Your task to perform on an android device: set the timer Image 0: 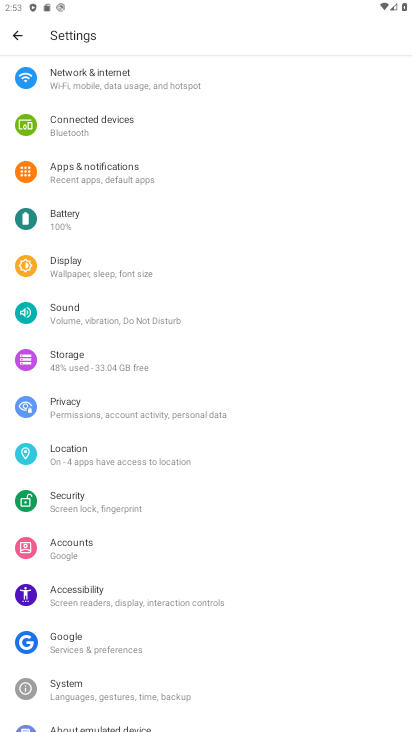
Step 0: click (12, 32)
Your task to perform on an android device: set the timer Image 1: 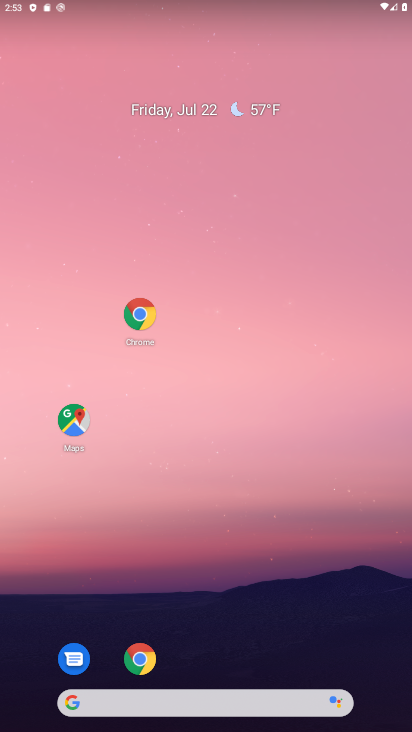
Step 1: drag from (205, 283) to (205, 213)
Your task to perform on an android device: set the timer Image 2: 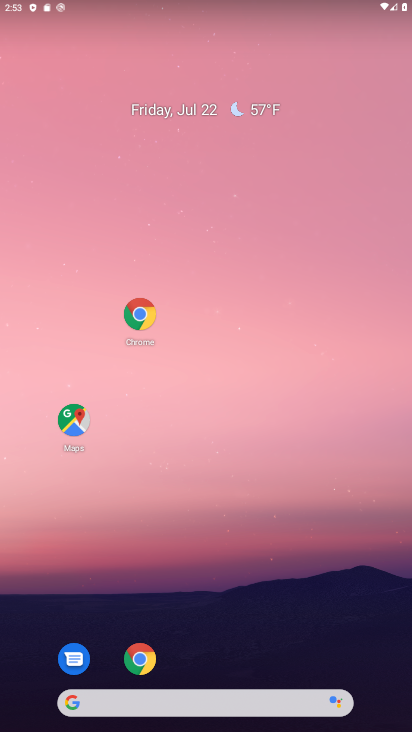
Step 2: click (209, 240)
Your task to perform on an android device: set the timer Image 3: 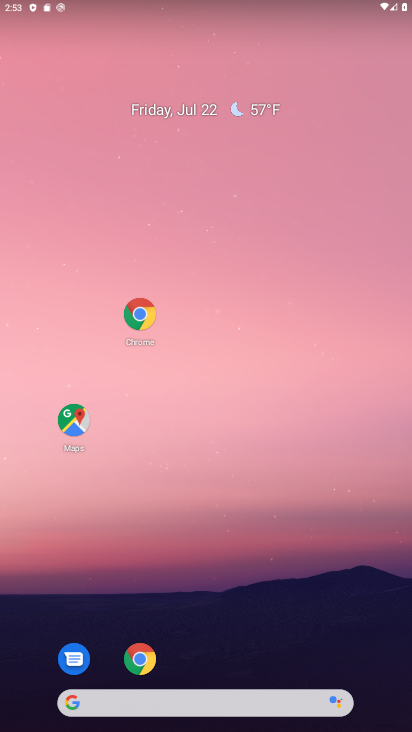
Step 3: drag from (274, 518) to (252, 19)
Your task to perform on an android device: set the timer Image 4: 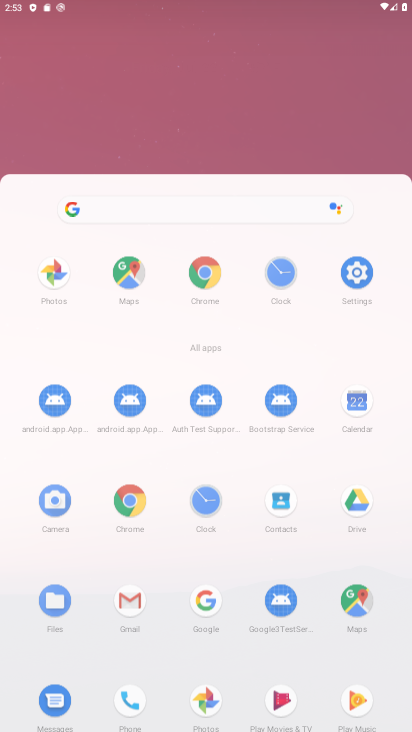
Step 4: drag from (234, 482) to (224, 83)
Your task to perform on an android device: set the timer Image 5: 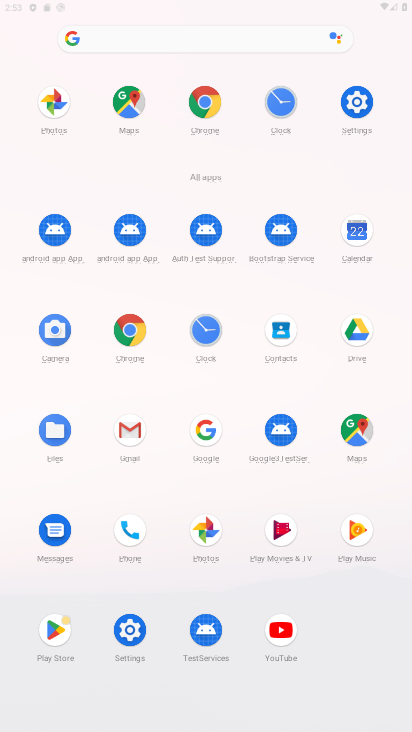
Step 5: drag from (207, 439) to (147, 73)
Your task to perform on an android device: set the timer Image 6: 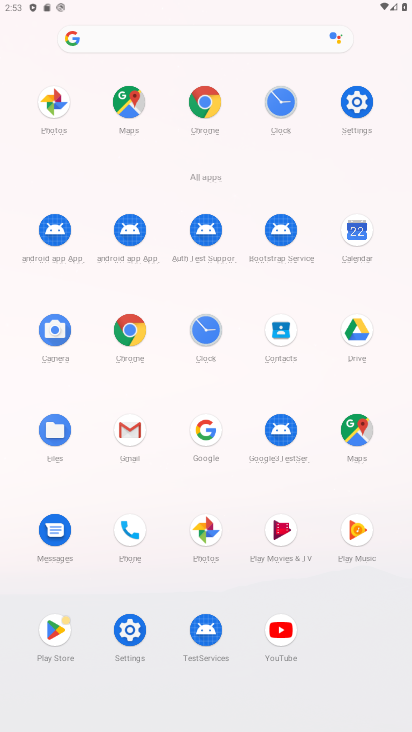
Step 6: click (201, 326)
Your task to perform on an android device: set the timer Image 7: 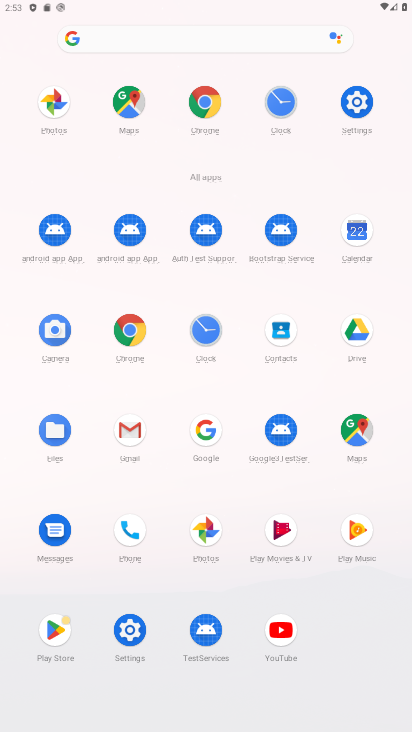
Step 7: click (200, 327)
Your task to perform on an android device: set the timer Image 8: 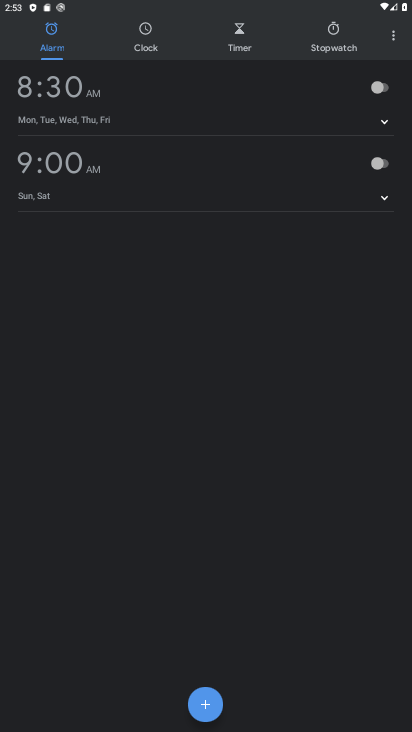
Step 8: click (249, 42)
Your task to perform on an android device: set the timer Image 9: 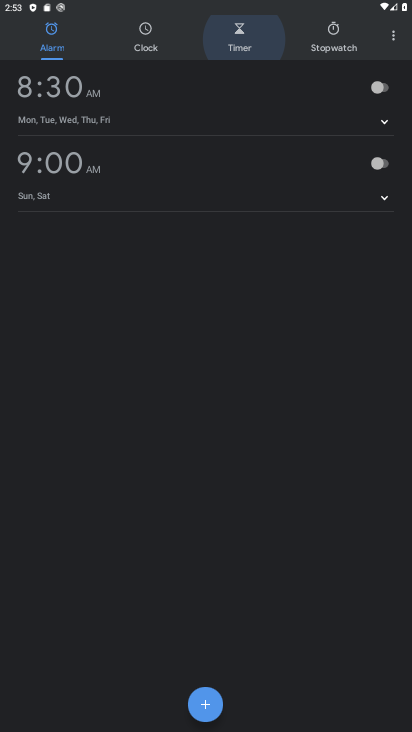
Step 9: click (241, 48)
Your task to perform on an android device: set the timer Image 10: 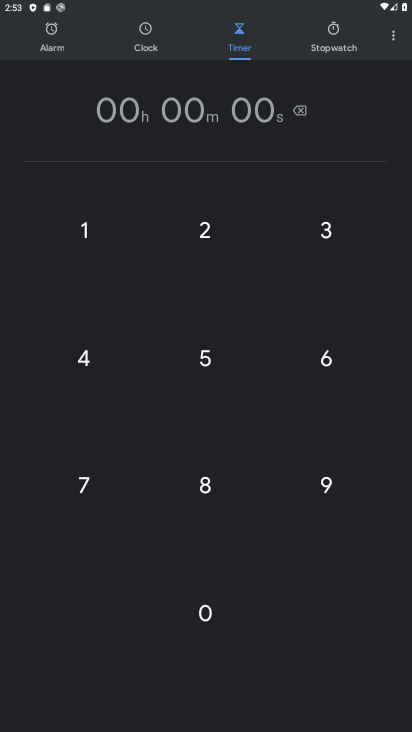
Step 10: click (212, 360)
Your task to perform on an android device: set the timer Image 11: 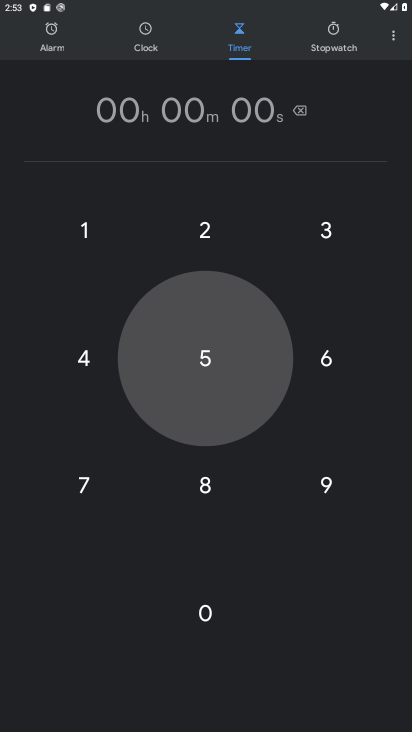
Step 11: click (212, 360)
Your task to perform on an android device: set the timer Image 12: 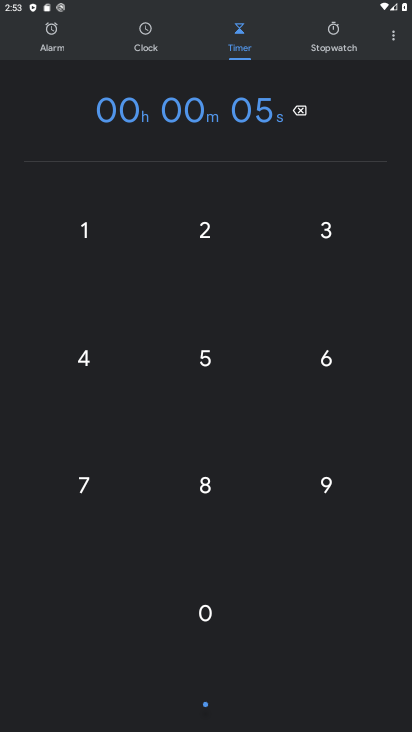
Step 12: click (211, 359)
Your task to perform on an android device: set the timer Image 13: 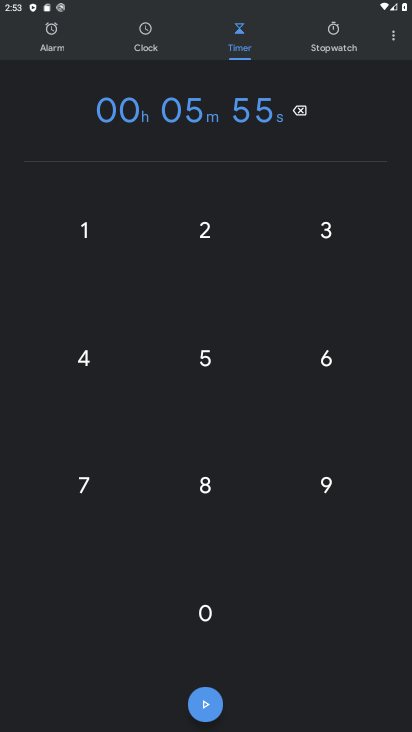
Step 13: click (211, 358)
Your task to perform on an android device: set the timer Image 14: 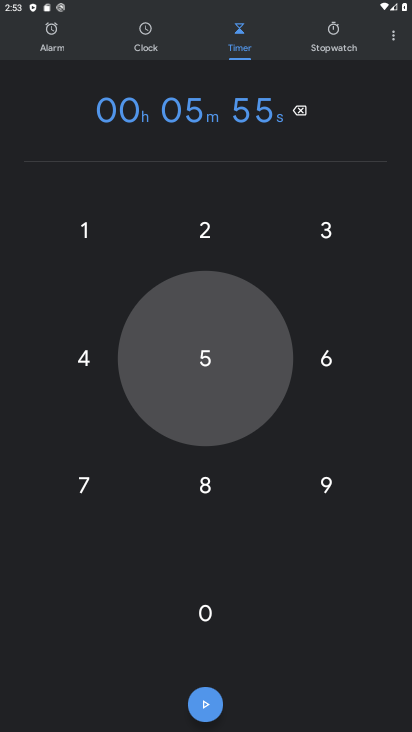
Step 14: click (211, 358)
Your task to perform on an android device: set the timer Image 15: 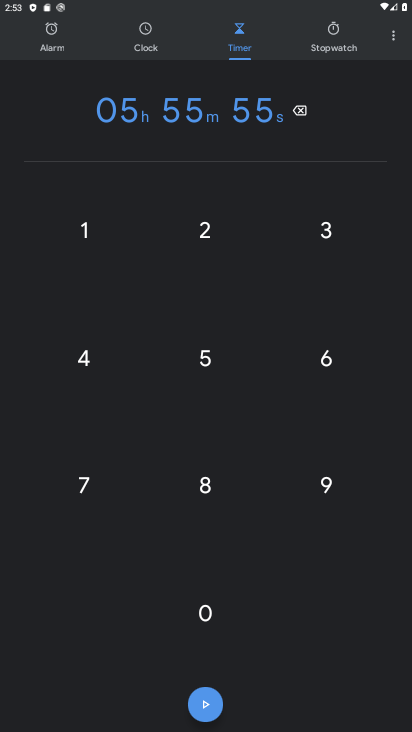
Step 15: click (196, 360)
Your task to perform on an android device: set the timer Image 16: 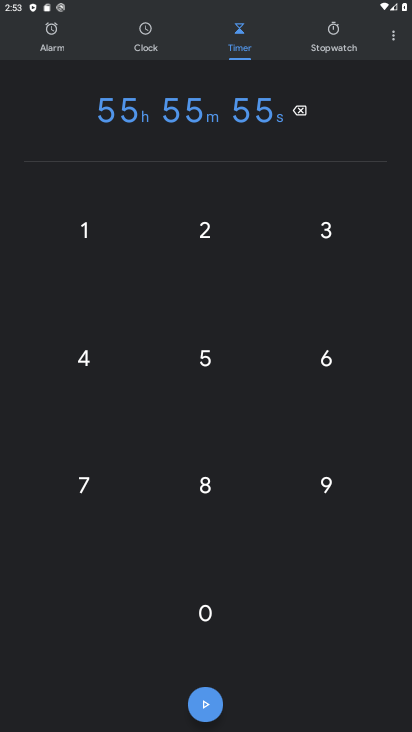
Step 16: click (210, 365)
Your task to perform on an android device: set the timer Image 17: 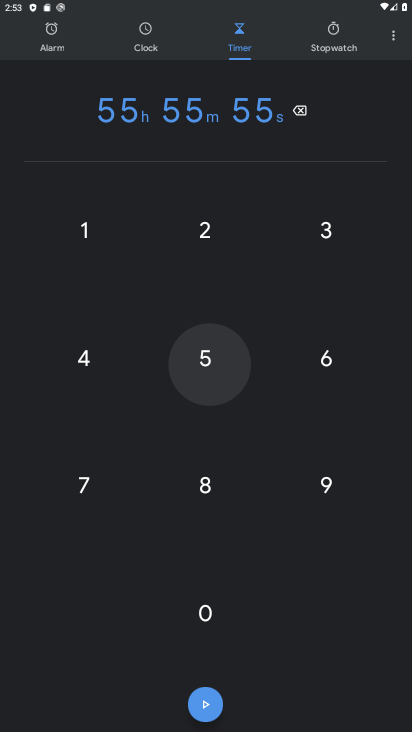
Step 17: click (210, 350)
Your task to perform on an android device: set the timer Image 18: 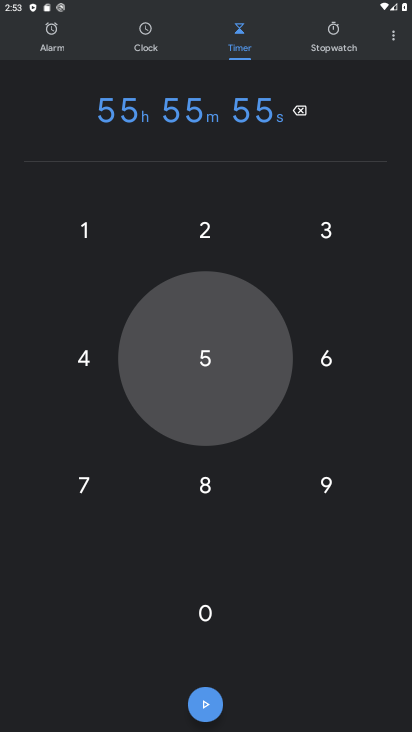
Step 18: click (210, 351)
Your task to perform on an android device: set the timer Image 19: 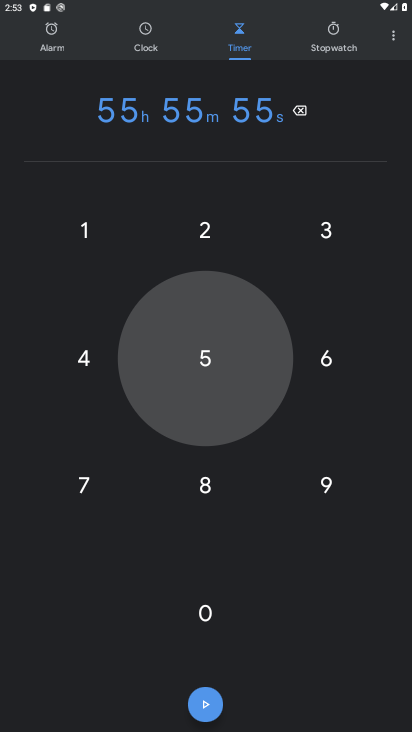
Step 19: click (216, 369)
Your task to perform on an android device: set the timer Image 20: 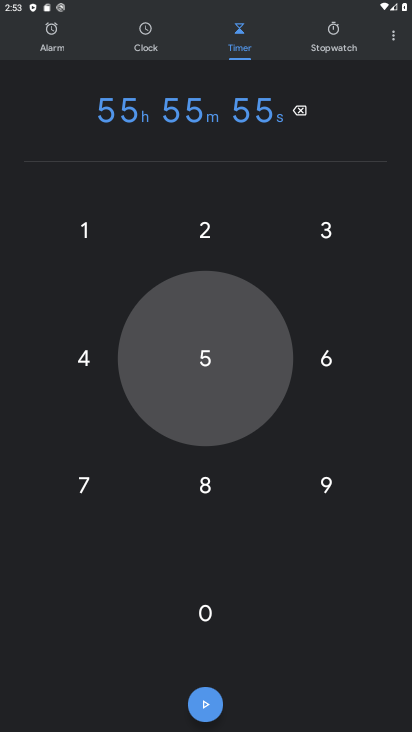
Step 20: click (208, 361)
Your task to perform on an android device: set the timer Image 21: 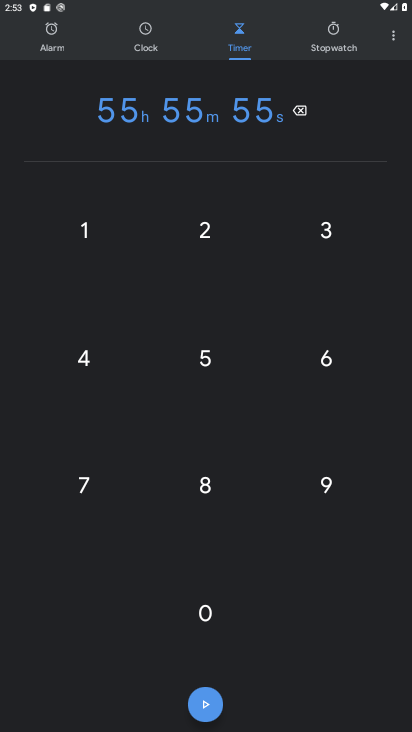
Step 21: click (208, 361)
Your task to perform on an android device: set the timer Image 22: 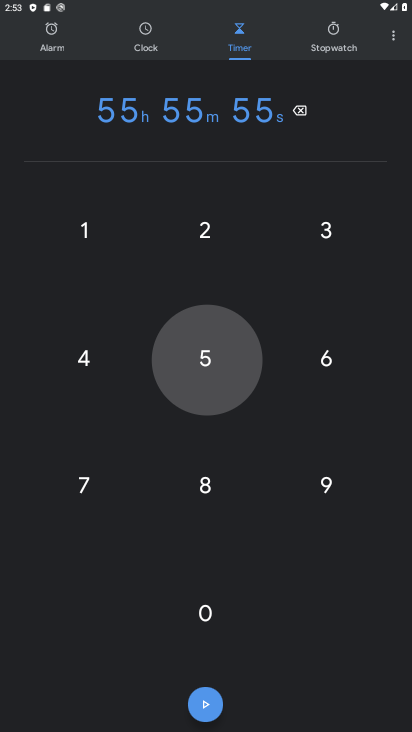
Step 22: click (208, 361)
Your task to perform on an android device: set the timer Image 23: 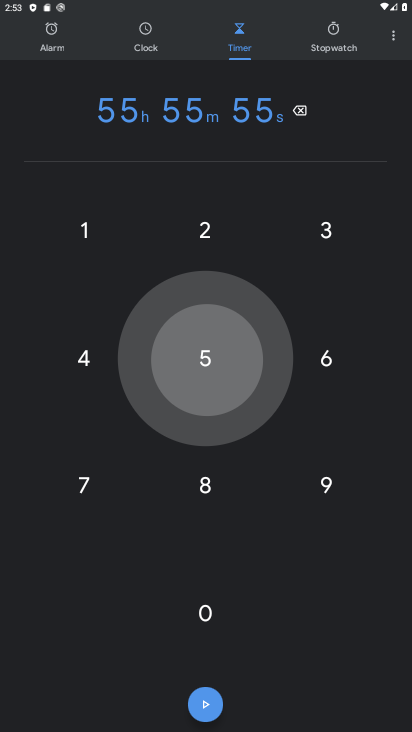
Step 23: click (208, 361)
Your task to perform on an android device: set the timer Image 24: 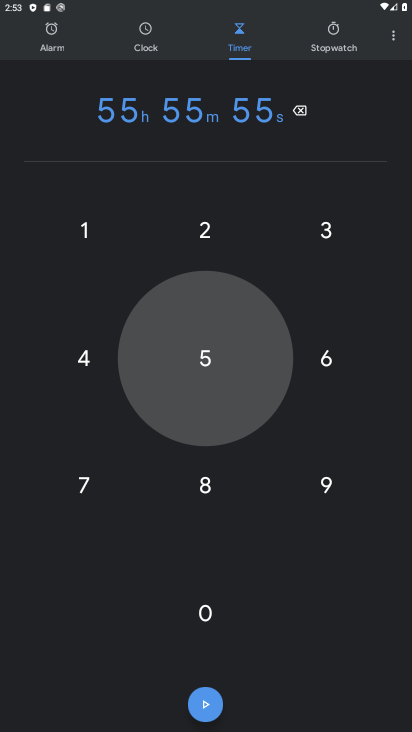
Step 24: click (208, 361)
Your task to perform on an android device: set the timer Image 25: 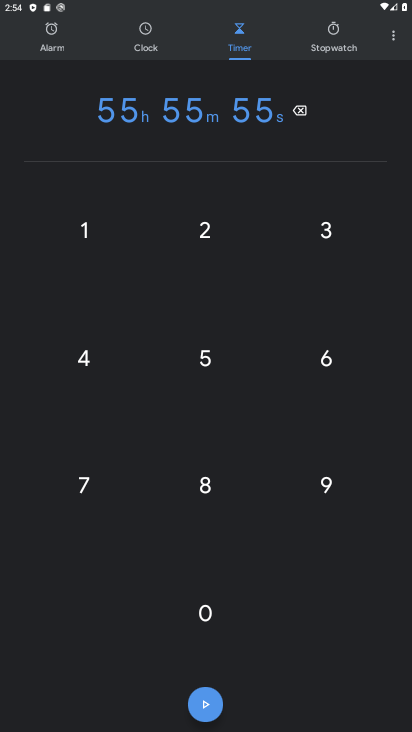
Step 25: click (211, 360)
Your task to perform on an android device: set the timer Image 26: 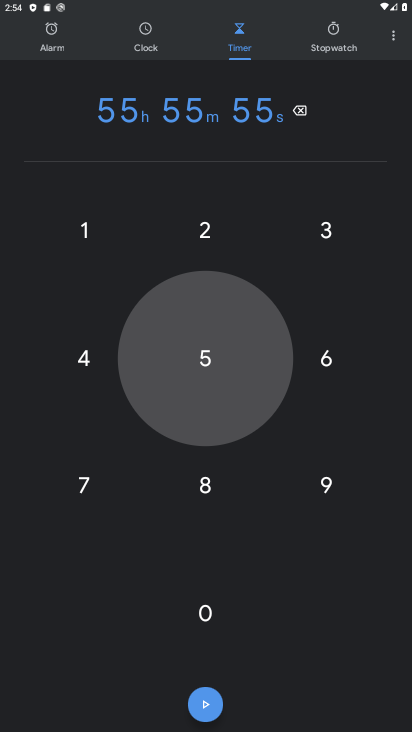
Step 26: click (210, 361)
Your task to perform on an android device: set the timer Image 27: 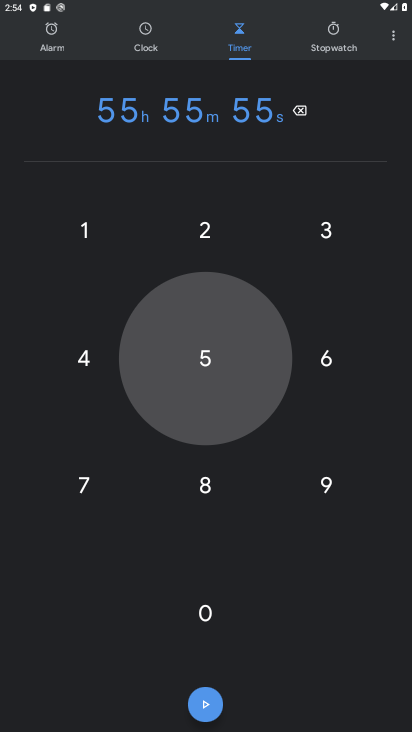
Step 27: click (210, 353)
Your task to perform on an android device: set the timer Image 28: 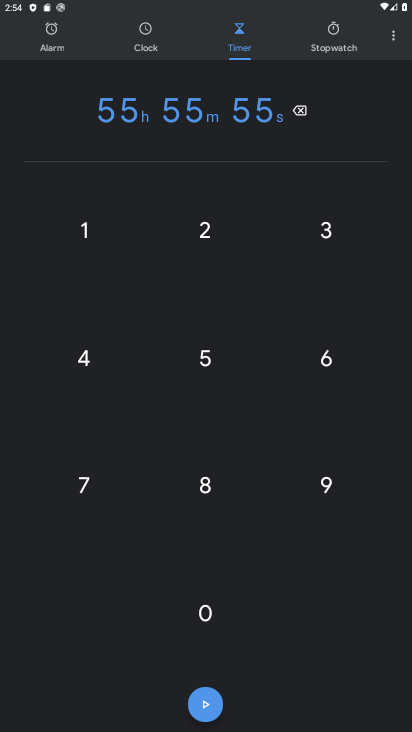
Step 28: click (211, 347)
Your task to perform on an android device: set the timer Image 29: 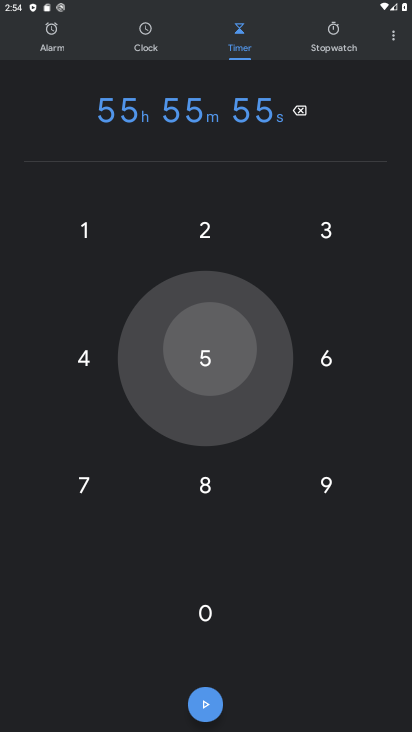
Step 29: click (215, 344)
Your task to perform on an android device: set the timer Image 30: 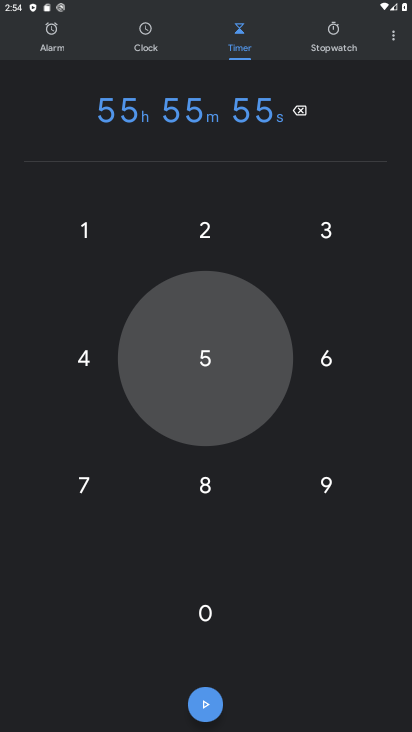
Step 30: click (215, 344)
Your task to perform on an android device: set the timer Image 31: 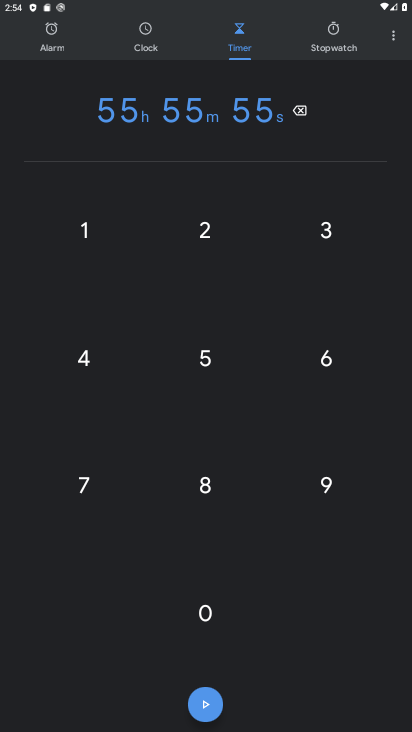
Step 31: click (226, 356)
Your task to perform on an android device: set the timer Image 32: 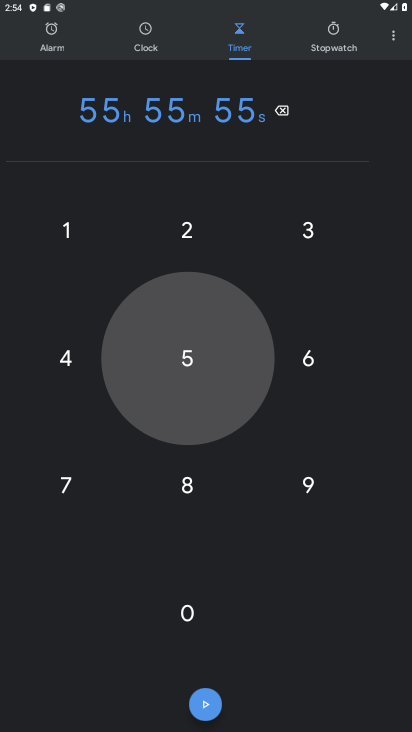
Step 32: click (195, 356)
Your task to perform on an android device: set the timer Image 33: 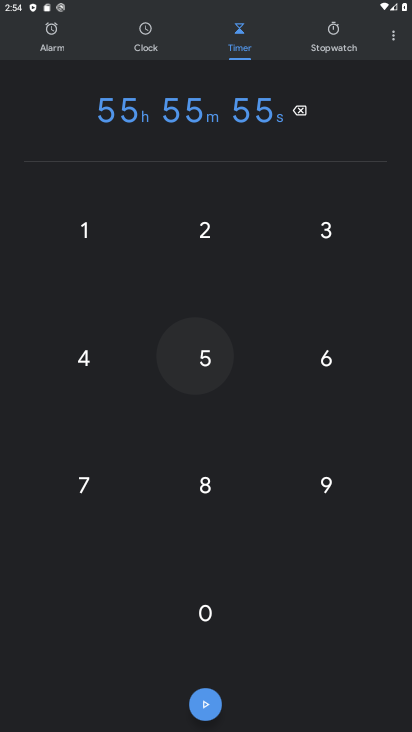
Step 33: click (195, 357)
Your task to perform on an android device: set the timer Image 34: 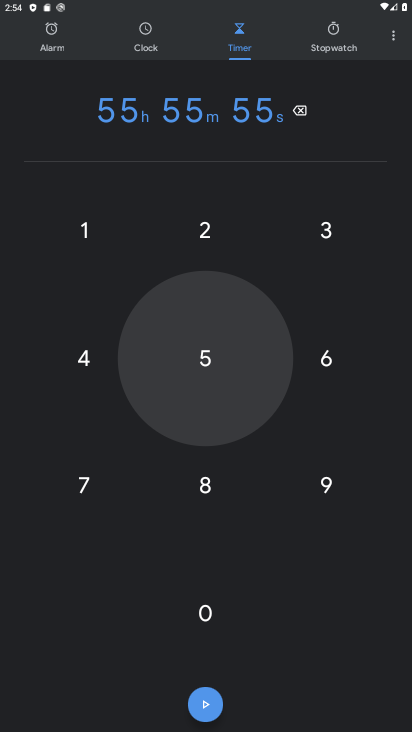
Step 34: click (195, 357)
Your task to perform on an android device: set the timer Image 35: 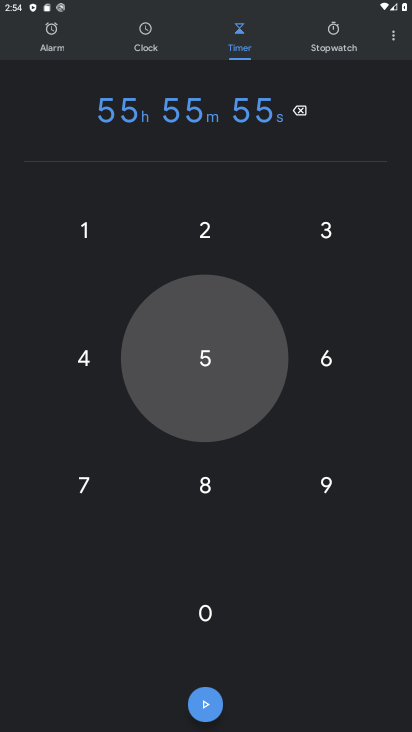
Step 35: click (197, 358)
Your task to perform on an android device: set the timer Image 36: 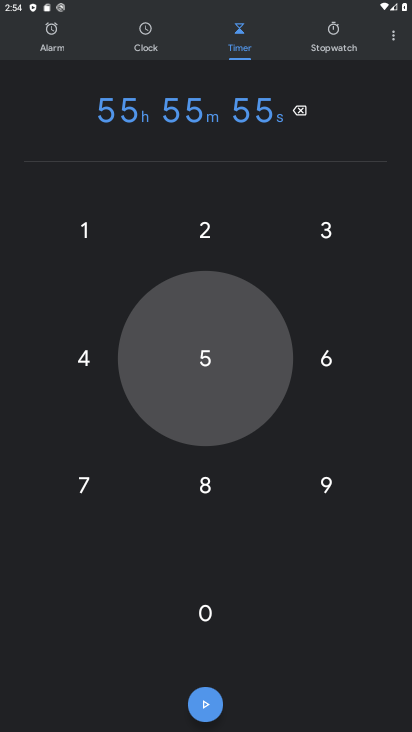
Step 36: click (198, 358)
Your task to perform on an android device: set the timer Image 37: 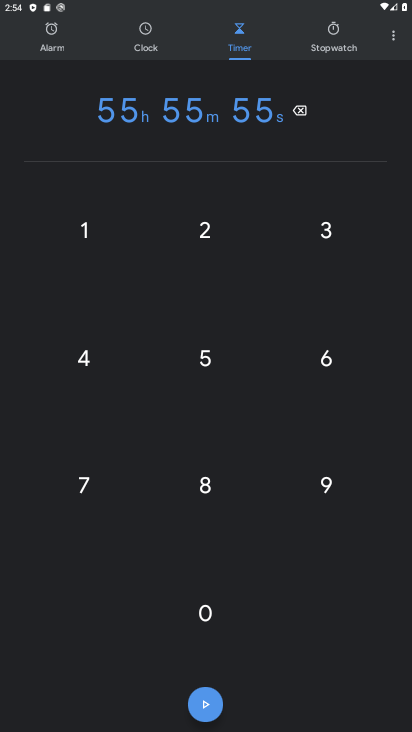
Step 37: click (202, 354)
Your task to perform on an android device: set the timer Image 38: 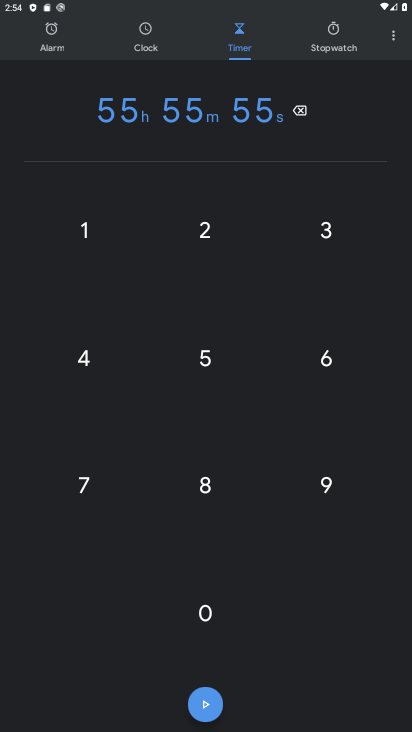
Step 38: click (202, 696)
Your task to perform on an android device: set the timer Image 39: 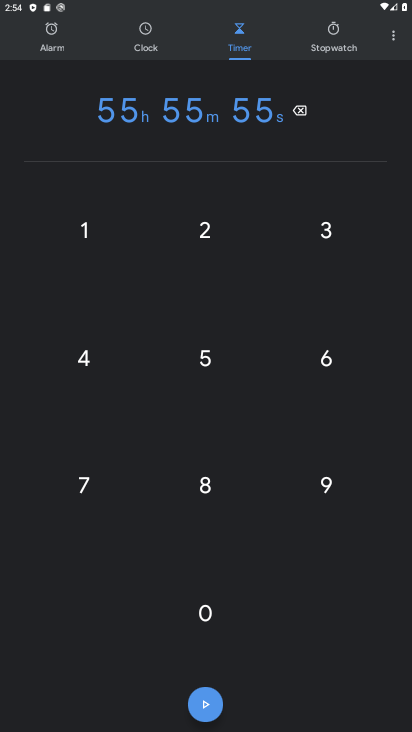
Step 39: click (202, 696)
Your task to perform on an android device: set the timer Image 40: 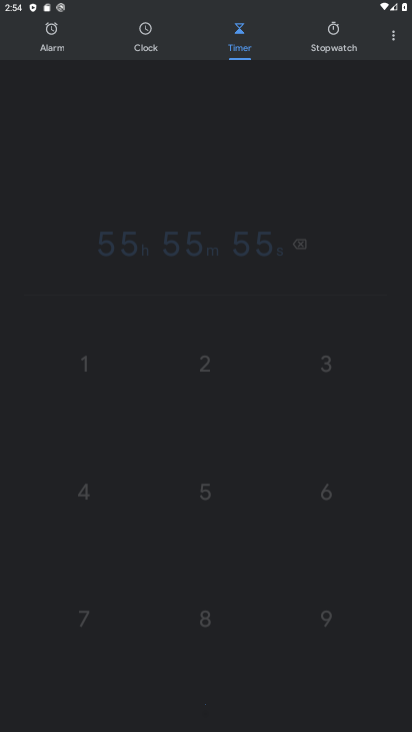
Step 40: click (209, 704)
Your task to perform on an android device: set the timer Image 41: 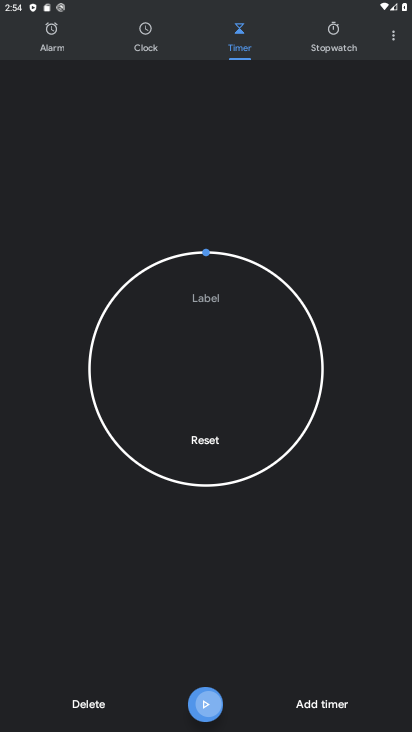
Step 41: click (209, 705)
Your task to perform on an android device: set the timer Image 42: 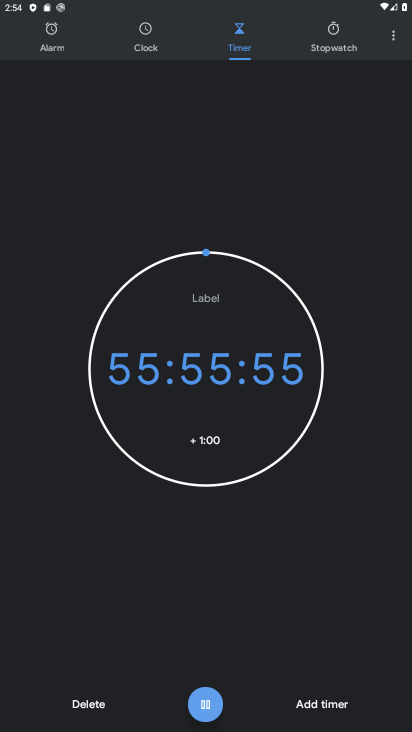
Step 42: click (209, 705)
Your task to perform on an android device: set the timer Image 43: 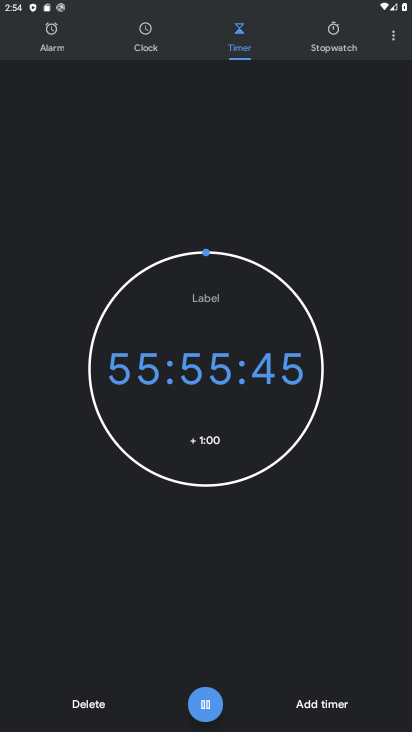
Step 43: click (243, 265)
Your task to perform on an android device: set the timer Image 44: 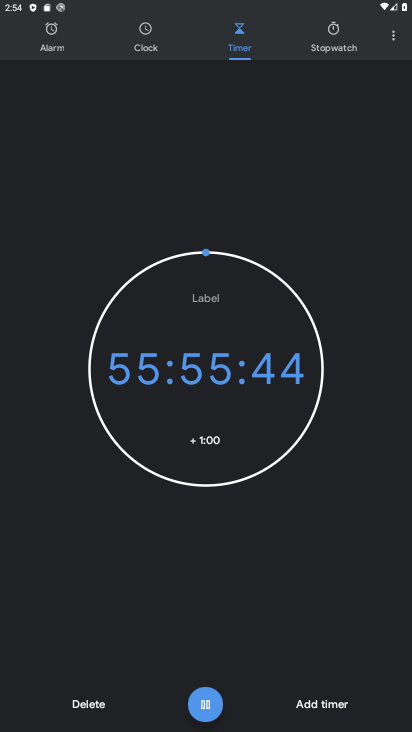
Step 44: click (258, 269)
Your task to perform on an android device: set the timer Image 45: 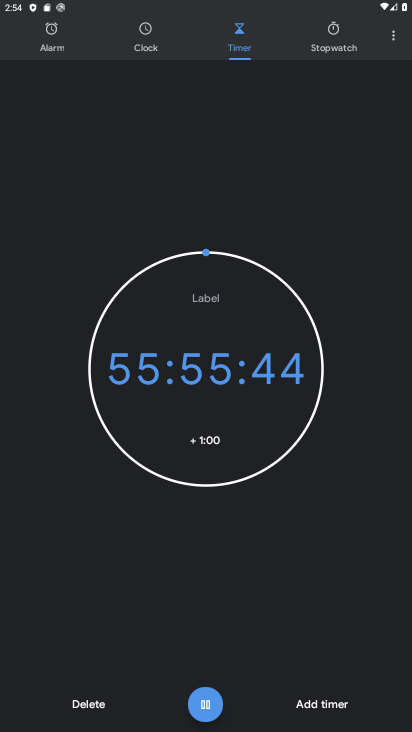
Step 45: click (259, 269)
Your task to perform on an android device: set the timer Image 46: 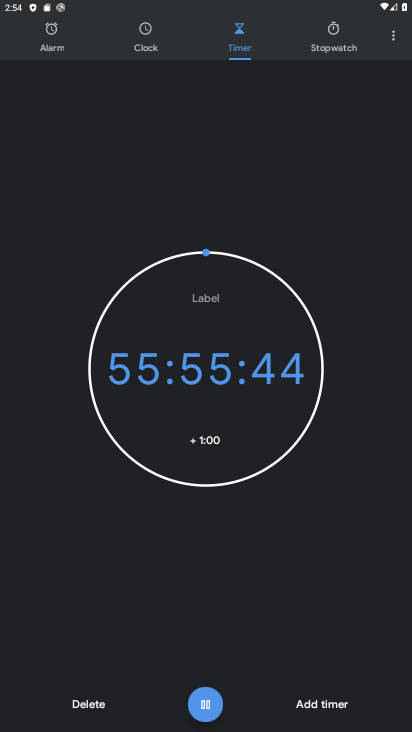
Step 46: click (259, 269)
Your task to perform on an android device: set the timer Image 47: 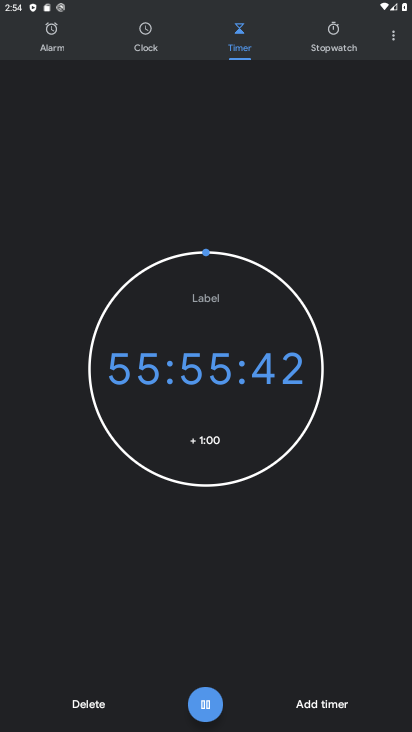
Step 47: click (263, 266)
Your task to perform on an android device: set the timer Image 48: 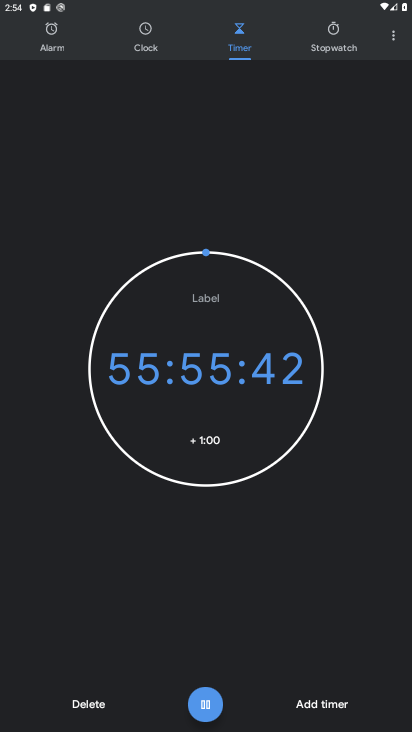
Step 48: click (273, 259)
Your task to perform on an android device: set the timer Image 49: 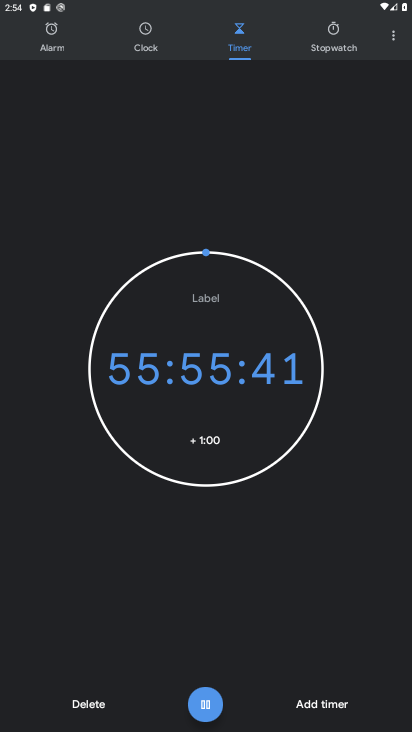
Step 49: click (275, 259)
Your task to perform on an android device: set the timer Image 50: 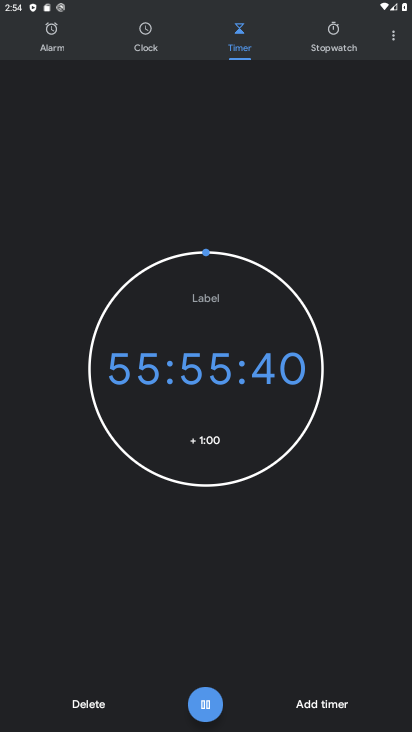
Step 50: click (266, 261)
Your task to perform on an android device: set the timer Image 51: 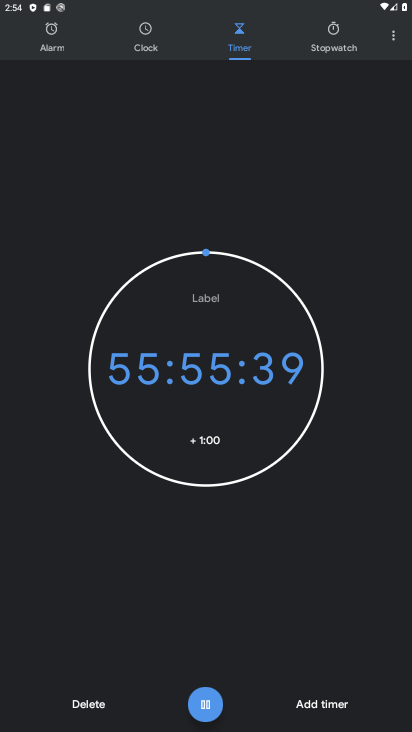
Step 51: click (266, 261)
Your task to perform on an android device: set the timer Image 52: 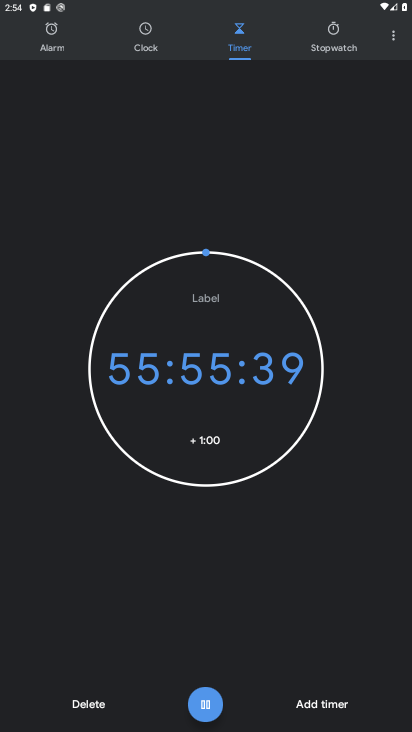
Step 52: click (265, 262)
Your task to perform on an android device: set the timer Image 53: 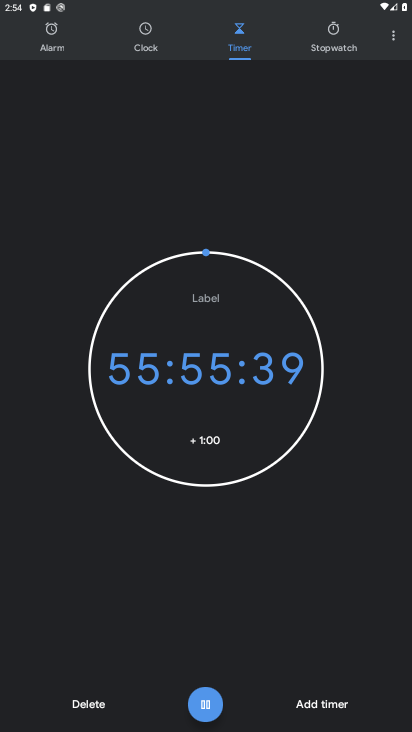
Step 53: click (272, 263)
Your task to perform on an android device: set the timer Image 54: 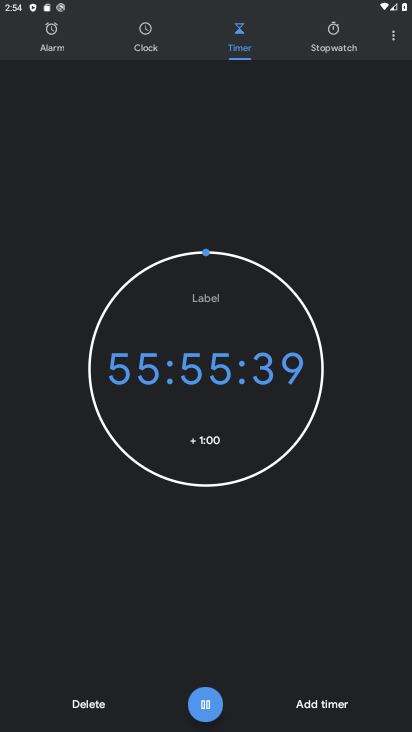
Step 54: click (277, 275)
Your task to perform on an android device: set the timer Image 55: 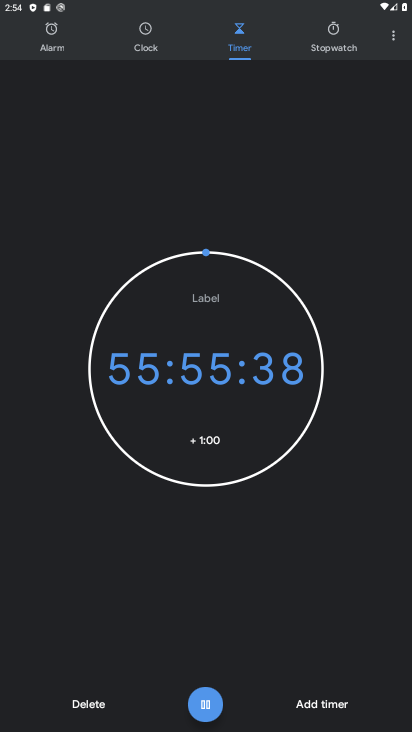
Step 55: drag from (277, 277) to (286, 407)
Your task to perform on an android device: set the timer Image 56: 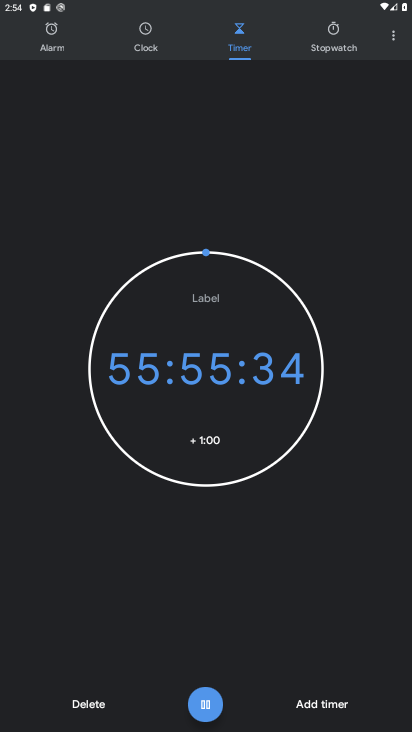
Step 56: click (260, 263)
Your task to perform on an android device: set the timer Image 57: 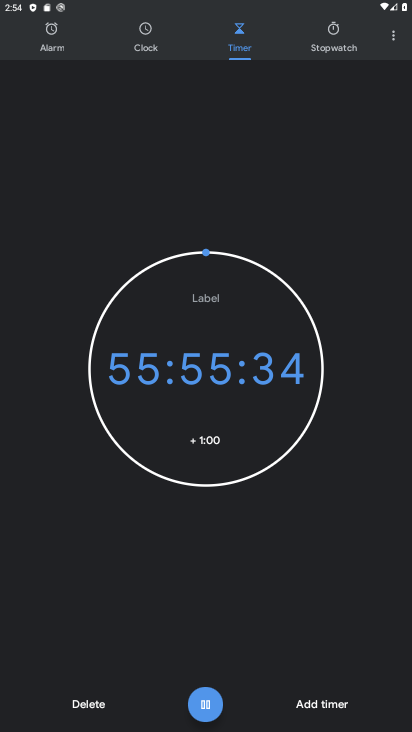
Step 57: click (260, 263)
Your task to perform on an android device: set the timer Image 58: 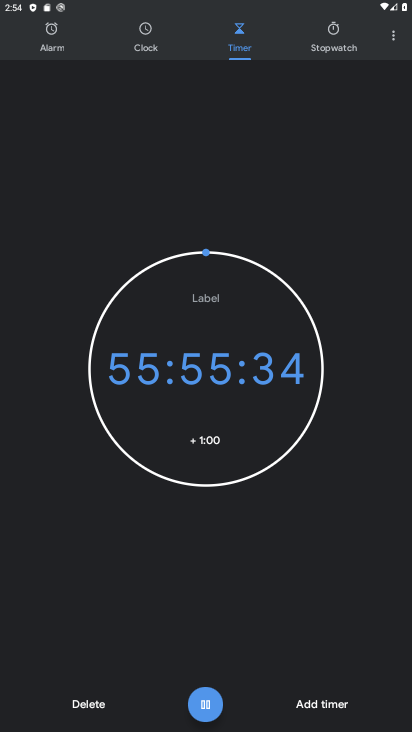
Step 58: click (264, 270)
Your task to perform on an android device: set the timer Image 59: 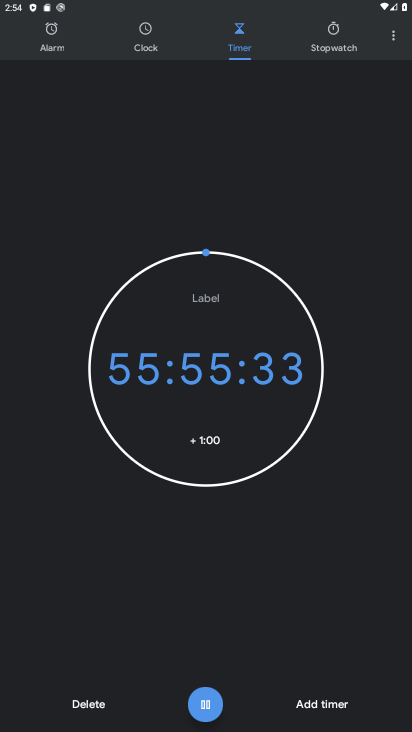
Step 59: click (205, 704)
Your task to perform on an android device: set the timer Image 60: 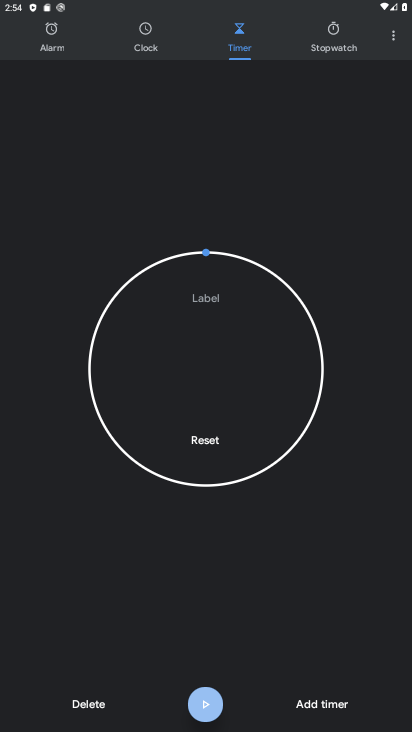
Step 60: click (206, 704)
Your task to perform on an android device: set the timer Image 61: 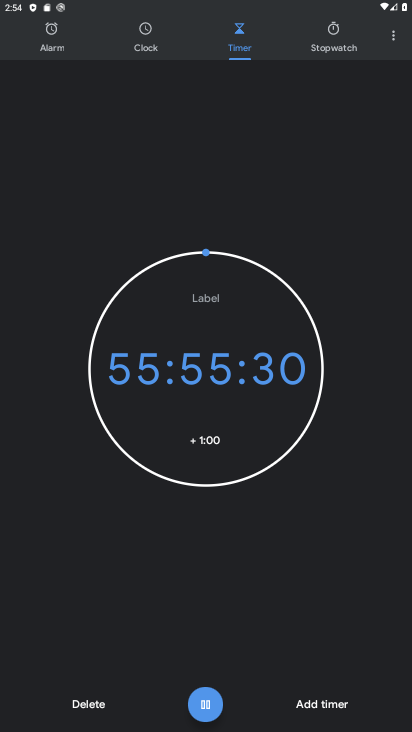
Step 61: click (204, 708)
Your task to perform on an android device: set the timer Image 62: 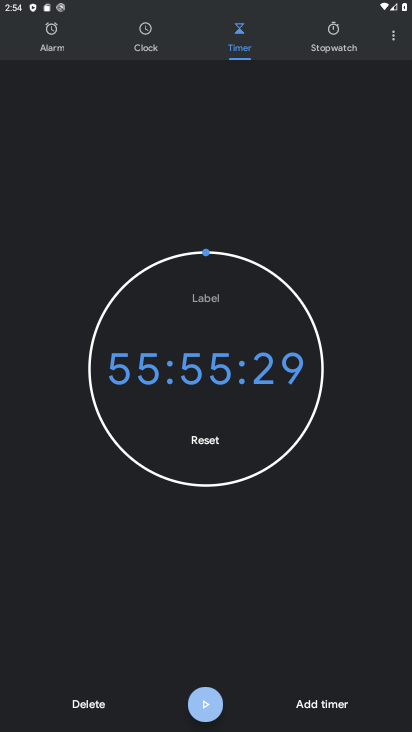
Step 62: click (209, 705)
Your task to perform on an android device: set the timer Image 63: 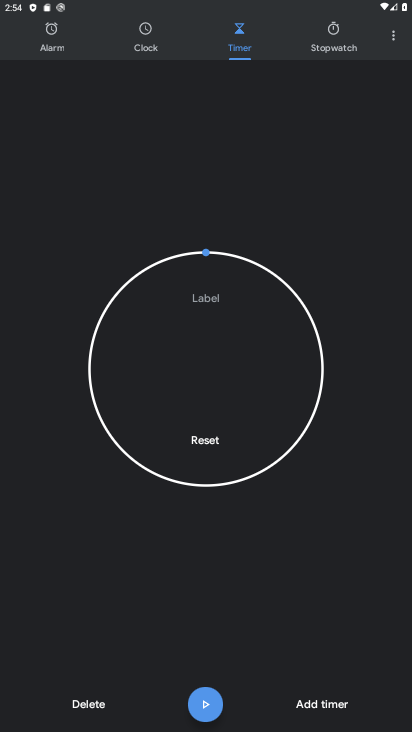
Step 63: click (209, 705)
Your task to perform on an android device: set the timer Image 64: 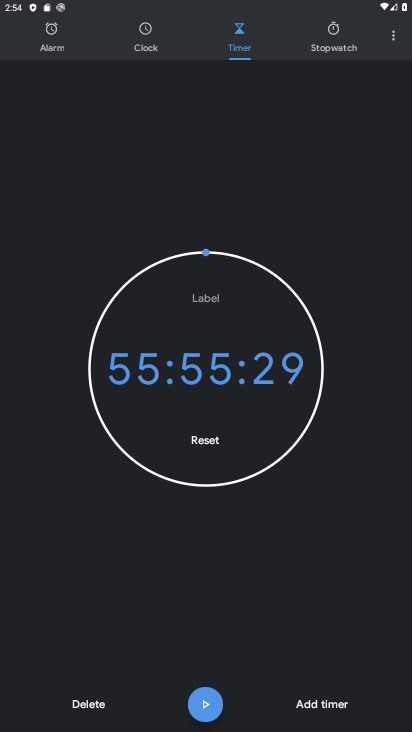
Step 64: task complete